Your task to perform on an android device: Open Yahoo.com Image 0: 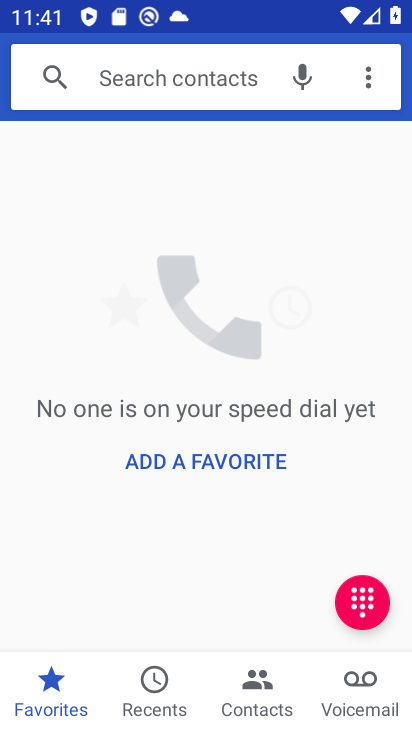
Step 0: press home button
Your task to perform on an android device: Open Yahoo.com Image 1: 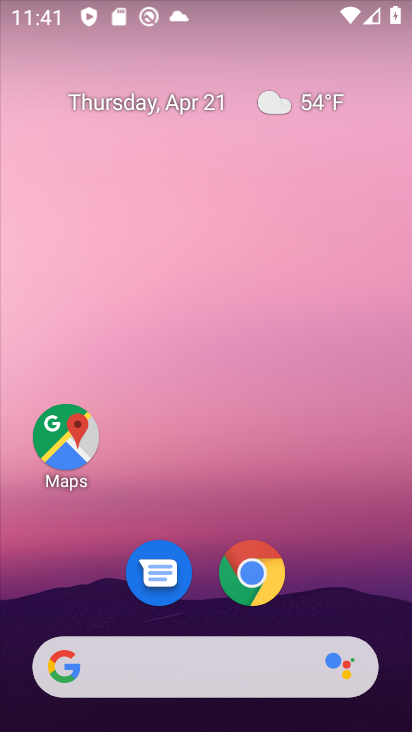
Step 1: drag from (345, 583) to (344, 249)
Your task to perform on an android device: Open Yahoo.com Image 2: 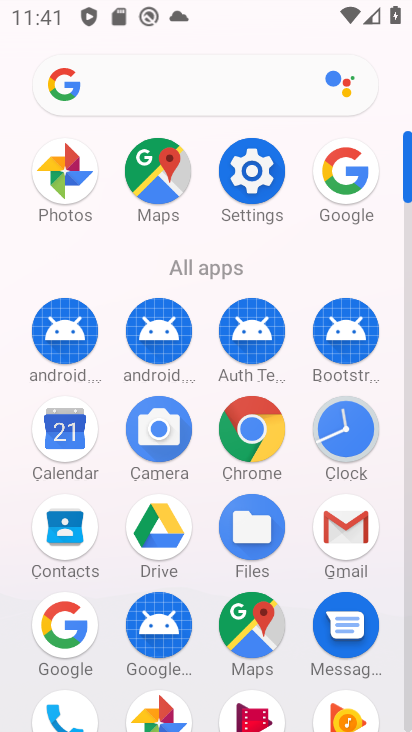
Step 2: click (264, 437)
Your task to perform on an android device: Open Yahoo.com Image 3: 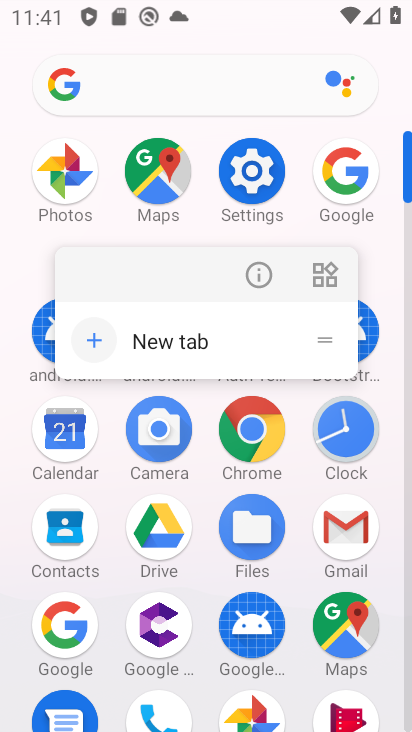
Step 3: click (270, 450)
Your task to perform on an android device: Open Yahoo.com Image 4: 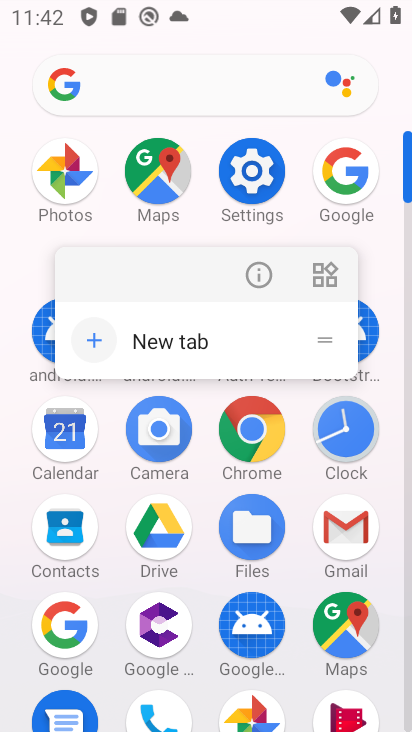
Step 4: click (265, 455)
Your task to perform on an android device: Open Yahoo.com Image 5: 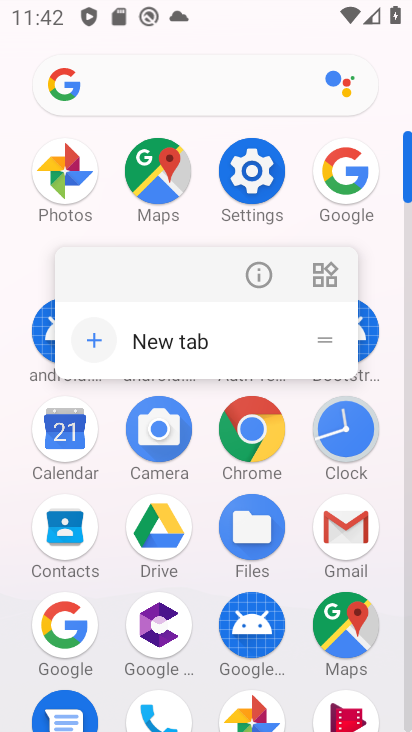
Step 5: click (258, 462)
Your task to perform on an android device: Open Yahoo.com Image 6: 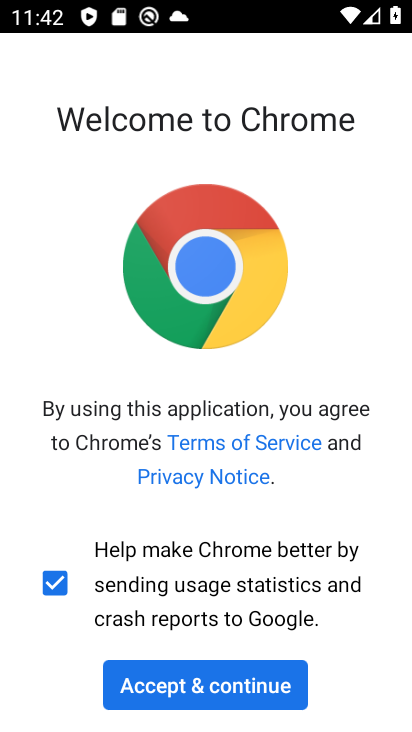
Step 6: click (227, 684)
Your task to perform on an android device: Open Yahoo.com Image 7: 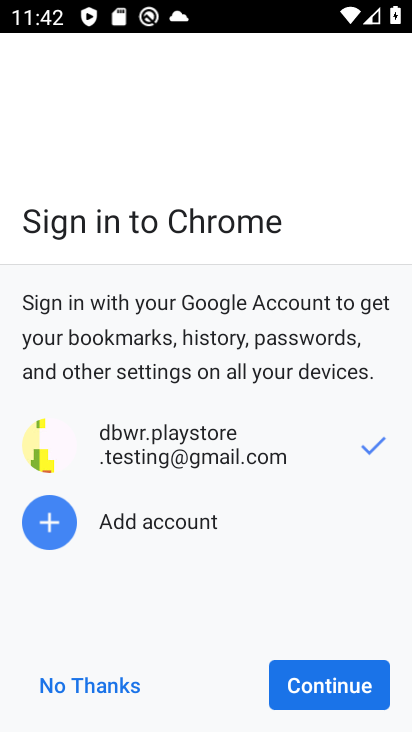
Step 7: click (315, 686)
Your task to perform on an android device: Open Yahoo.com Image 8: 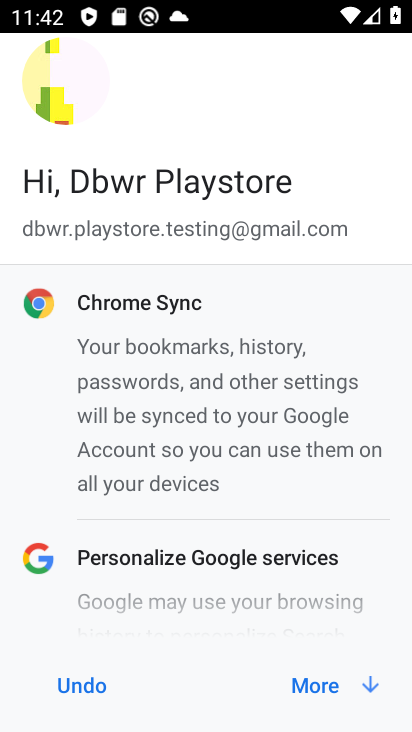
Step 8: click (315, 685)
Your task to perform on an android device: Open Yahoo.com Image 9: 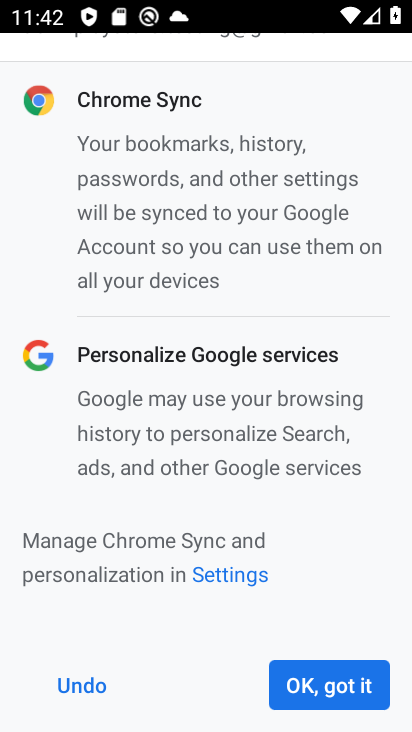
Step 9: click (313, 683)
Your task to perform on an android device: Open Yahoo.com Image 10: 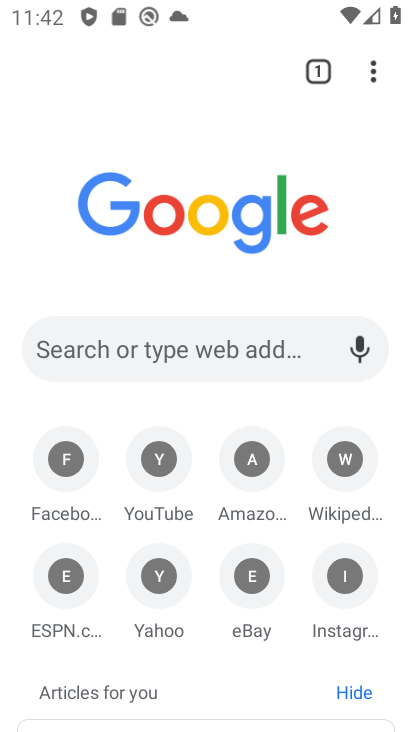
Step 10: click (208, 347)
Your task to perform on an android device: Open Yahoo.com Image 11: 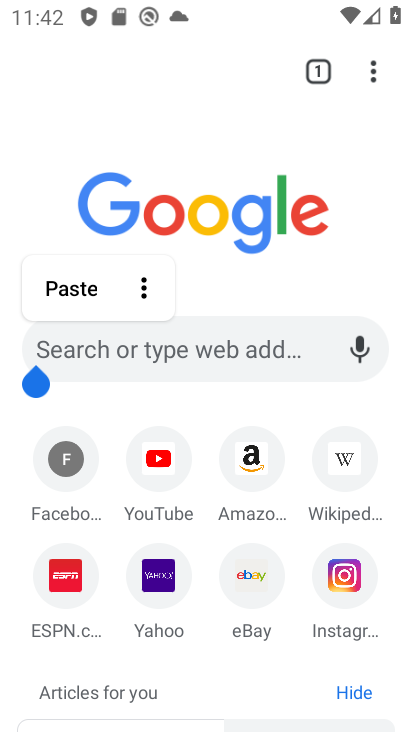
Step 11: click (207, 346)
Your task to perform on an android device: Open Yahoo.com Image 12: 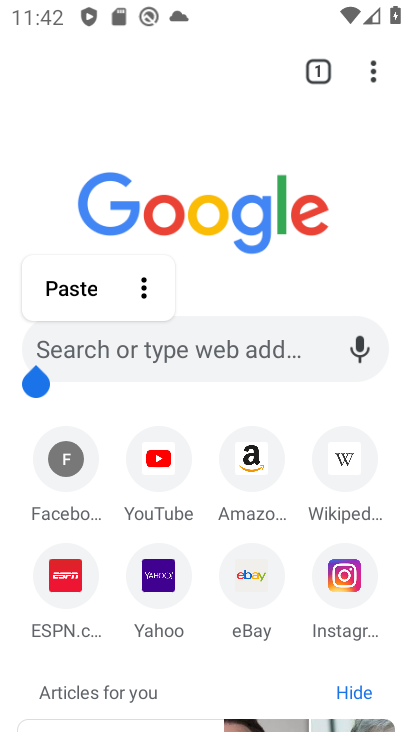
Step 12: click (163, 354)
Your task to perform on an android device: Open Yahoo.com Image 13: 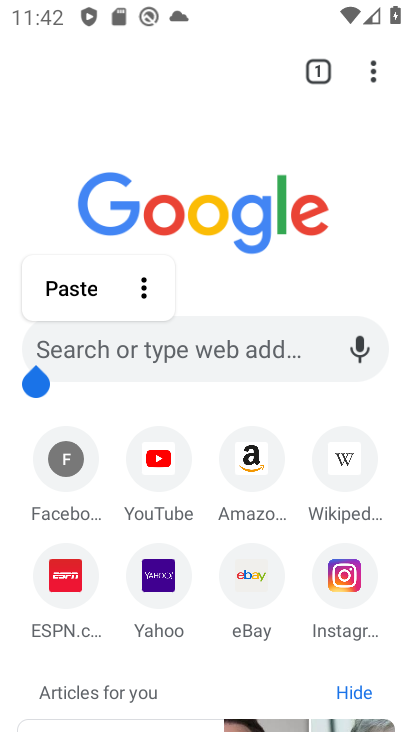
Step 13: click (244, 342)
Your task to perform on an android device: Open Yahoo.com Image 14: 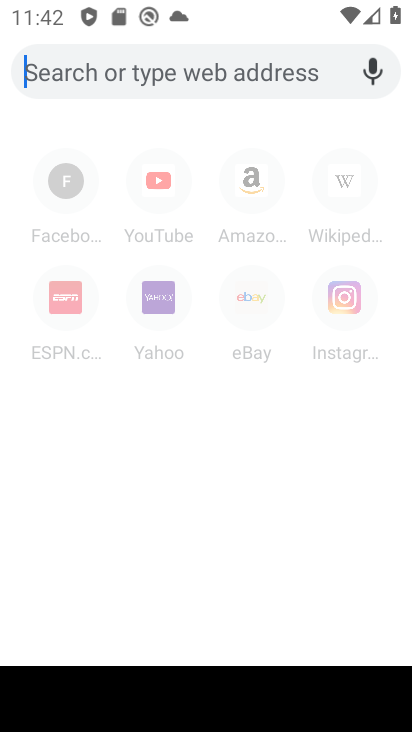
Step 14: type "yahoo.com"
Your task to perform on an android device: Open Yahoo.com Image 15: 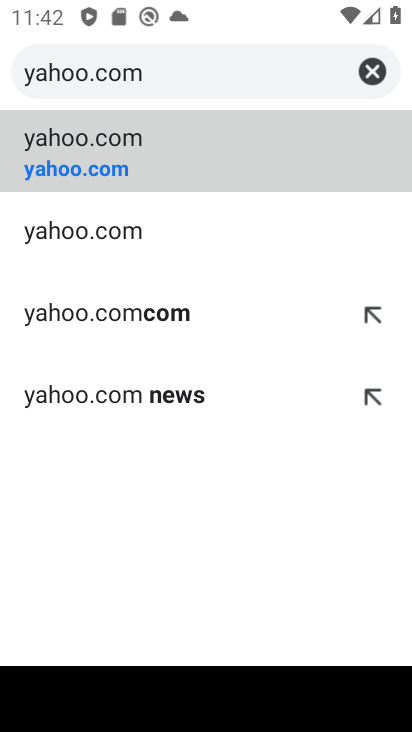
Step 15: click (94, 165)
Your task to perform on an android device: Open Yahoo.com Image 16: 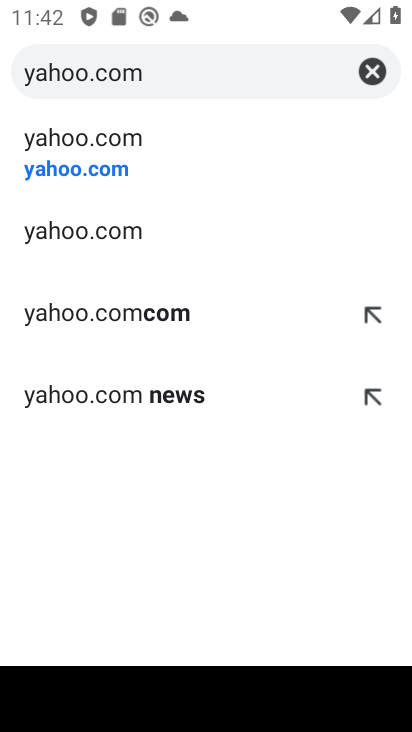
Step 16: click (94, 169)
Your task to perform on an android device: Open Yahoo.com Image 17: 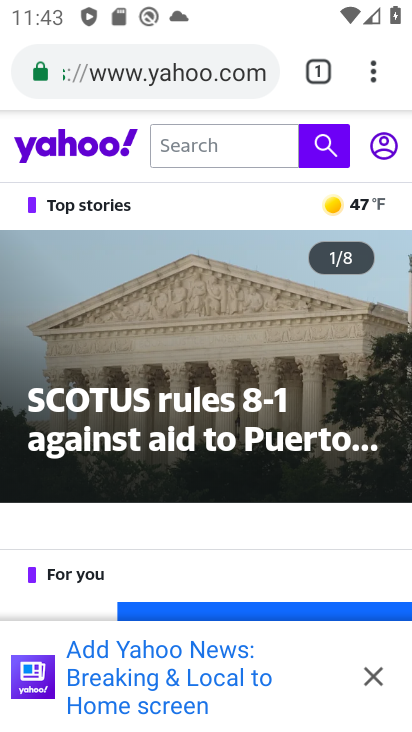
Step 17: task complete